Your task to perform on an android device: see sites visited before in the chrome app Image 0: 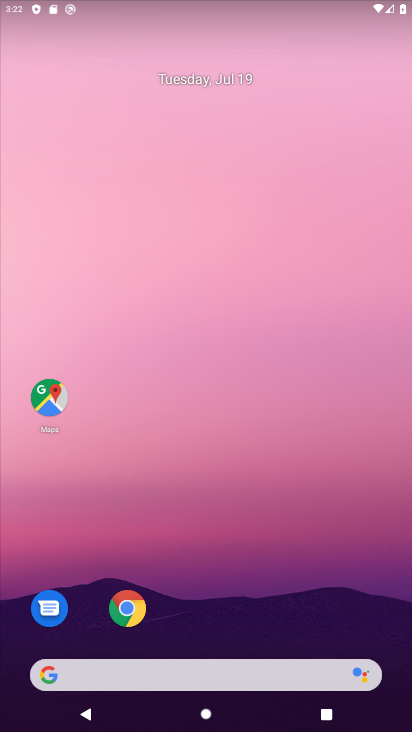
Step 0: press home button
Your task to perform on an android device: see sites visited before in the chrome app Image 1: 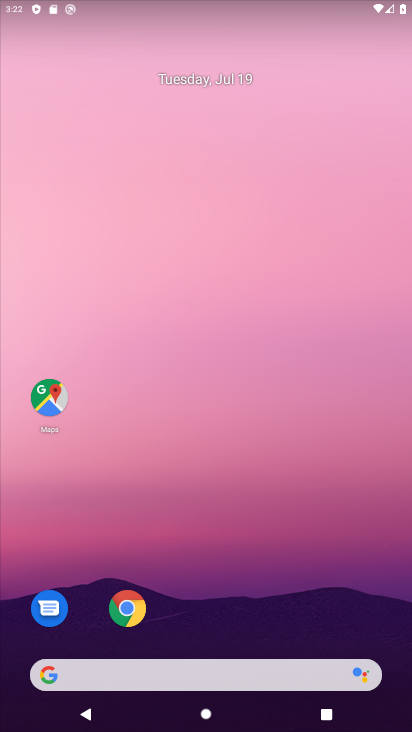
Step 1: click (136, 610)
Your task to perform on an android device: see sites visited before in the chrome app Image 2: 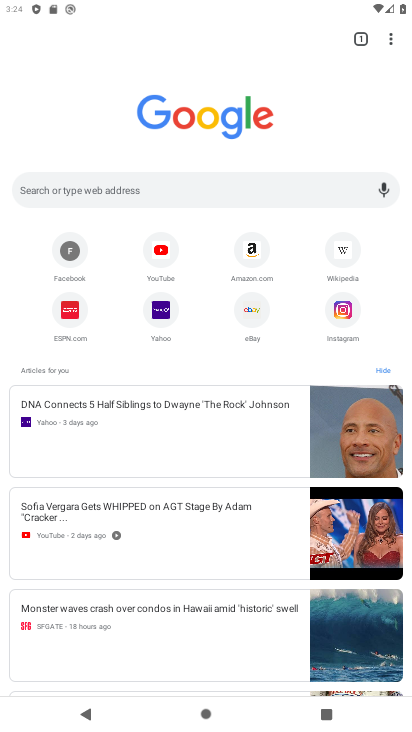
Step 2: task complete